Your task to perform on an android device: turn off data saver in the chrome app Image 0: 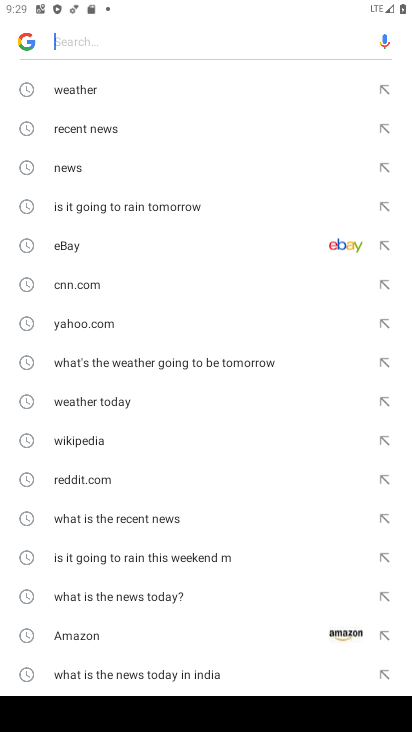
Step 0: press back button
Your task to perform on an android device: turn off data saver in the chrome app Image 1: 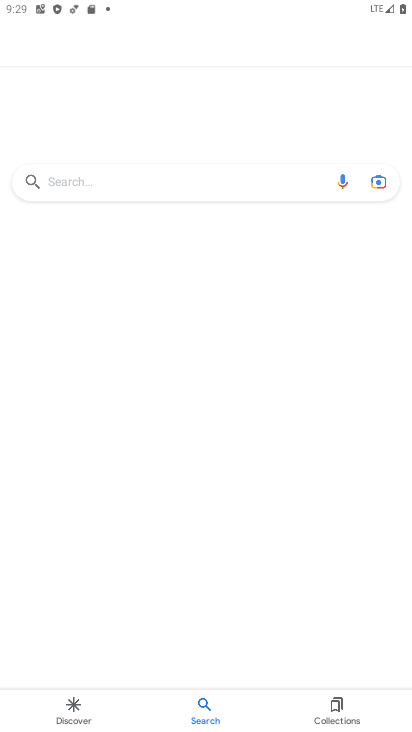
Step 1: press back button
Your task to perform on an android device: turn off data saver in the chrome app Image 2: 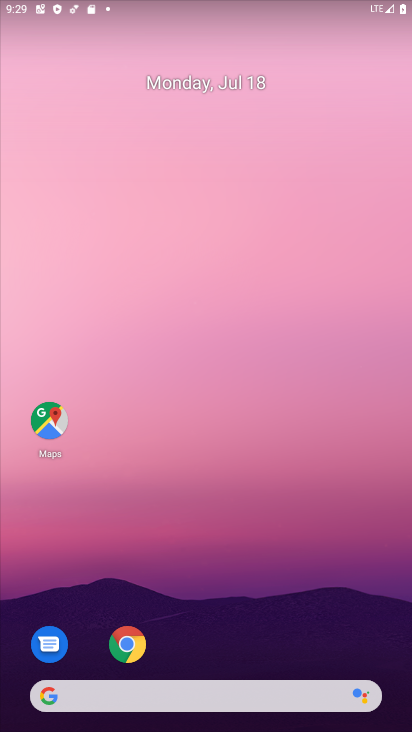
Step 2: click (186, 645)
Your task to perform on an android device: turn off data saver in the chrome app Image 3: 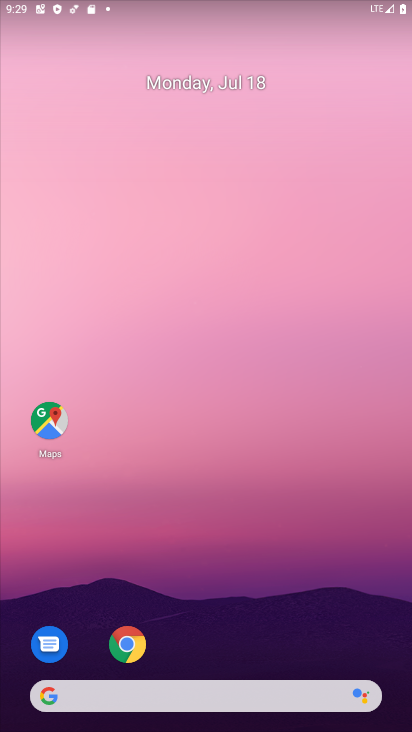
Step 3: click (153, 646)
Your task to perform on an android device: turn off data saver in the chrome app Image 4: 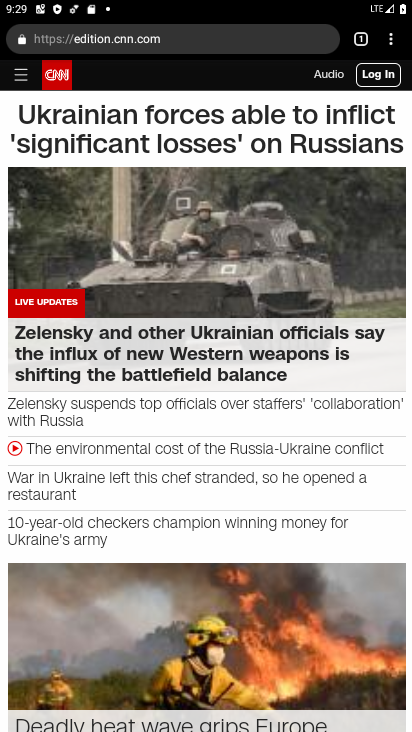
Step 4: click (392, 42)
Your task to perform on an android device: turn off data saver in the chrome app Image 5: 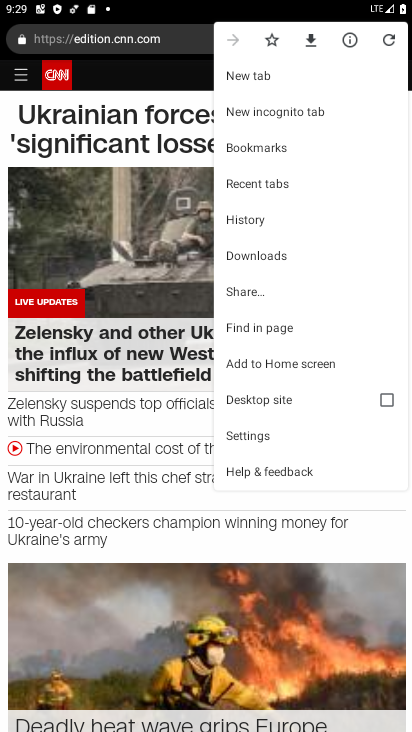
Step 5: click (258, 432)
Your task to perform on an android device: turn off data saver in the chrome app Image 6: 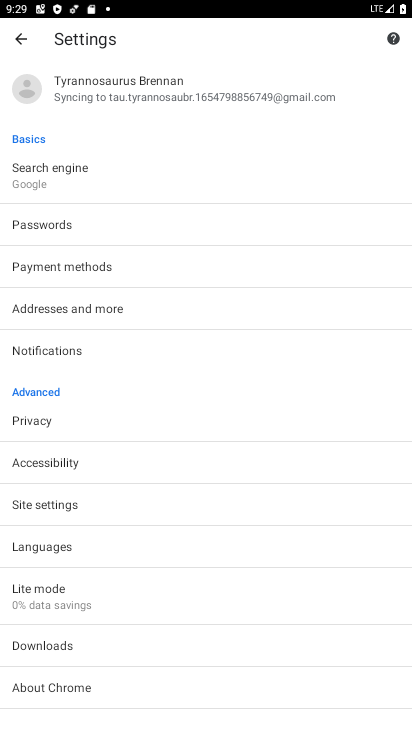
Step 6: click (23, 600)
Your task to perform on an android device: turn off data saver in the chrome app Image 7: 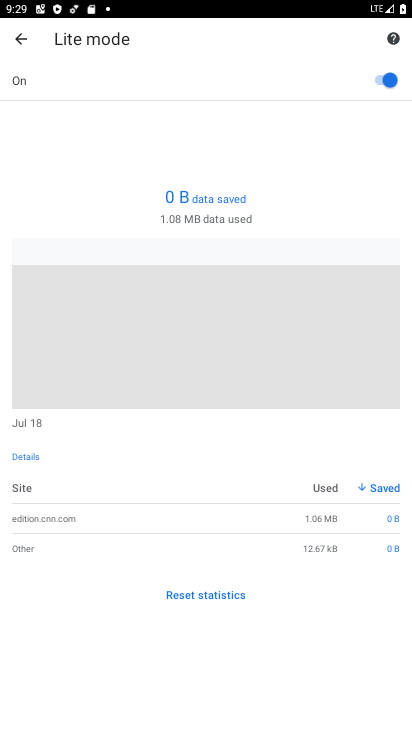
Step 7: click (378, 79)
Your task to perform on an android device: turn off data saver in the chrome app Image 8: 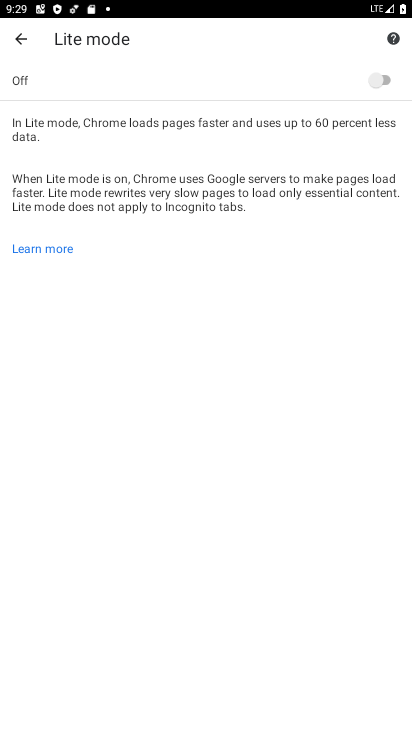
Step 8: task complete